Your task to perform on an android device: change notifications settings Image 0: 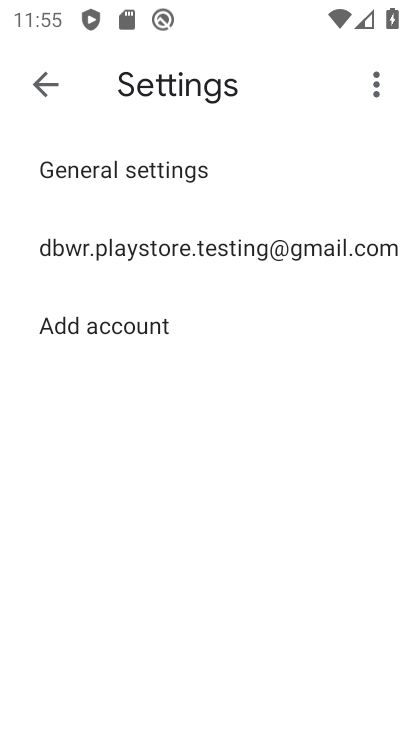
Step 0: press home button
Your task to perform on an android device: change notifications settings Image 1: 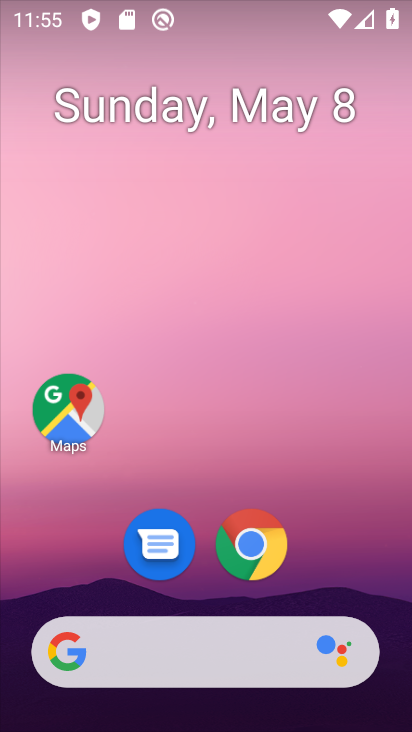
Step 1: drag from (331, 532) to (284, 54)
Your task to perform on an android device: change notifications settings Image 2: 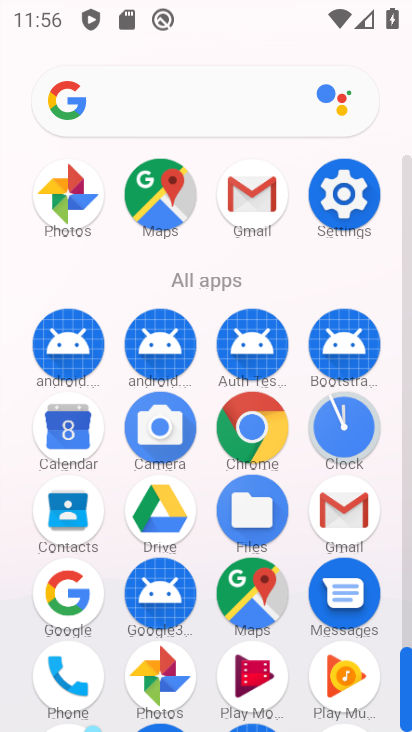
Step 2: click (317, 209)
Your task to perform on an android device: change notifications settings Image 3: 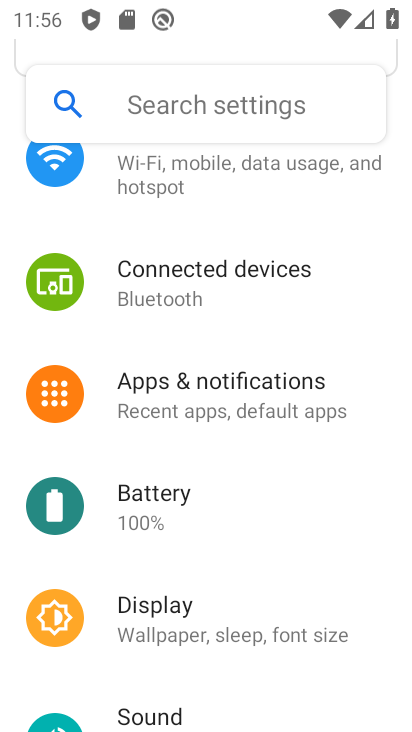
Step 3: drag from (284, 624) to (220, 144)
Your task to perform on an android device: change notifications settings Image 4: 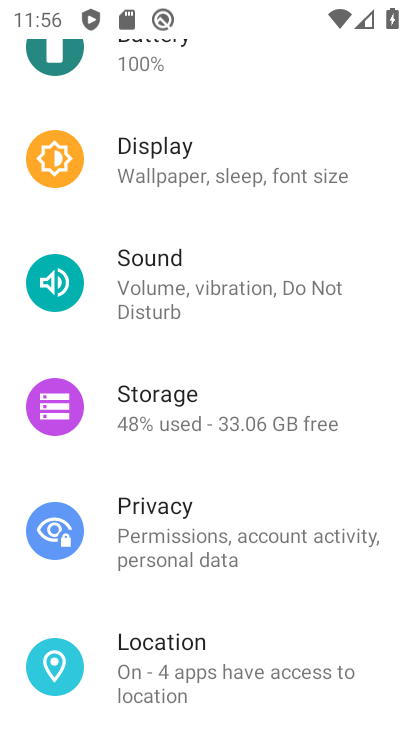
Step 4: drag from (235, 345) to (237, 641)
Your task to perform on an android device: change notifications settings Image 5: 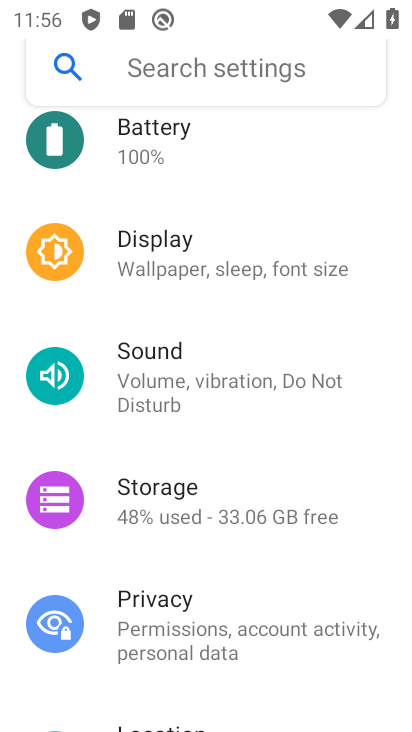
Step 5: drag from (239, 279) to (227, 647)
Your task to perform on an android device: change notifications settings Image 6: 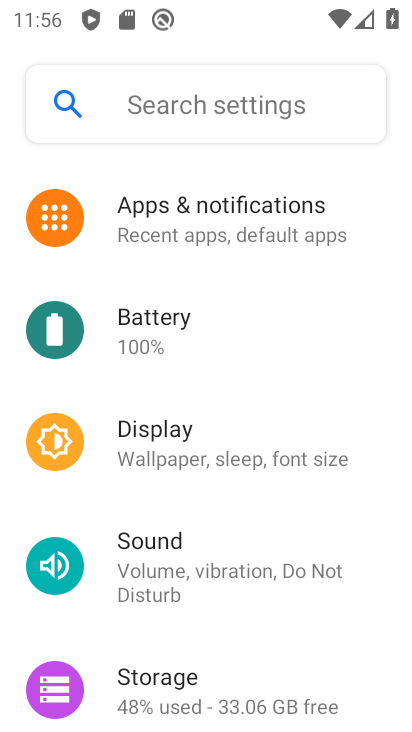
Step 6: drag from (276, 267) to (301, 694)
Your task to perform on an android device: change notifications settings Image 7: 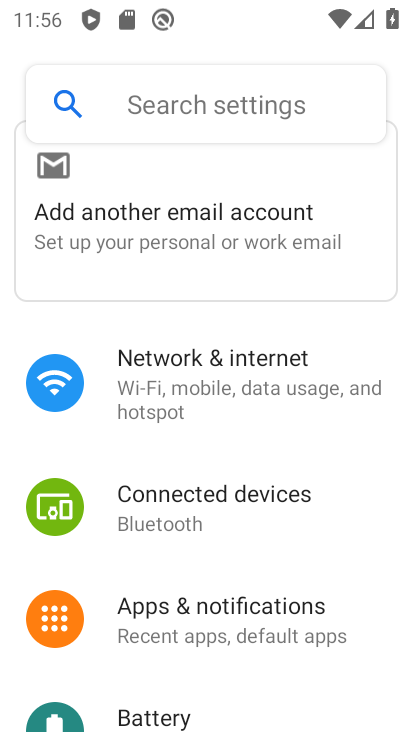
Step 7: click (237, 624)
Your task to perform on an android device: change notifications settings Image 8: 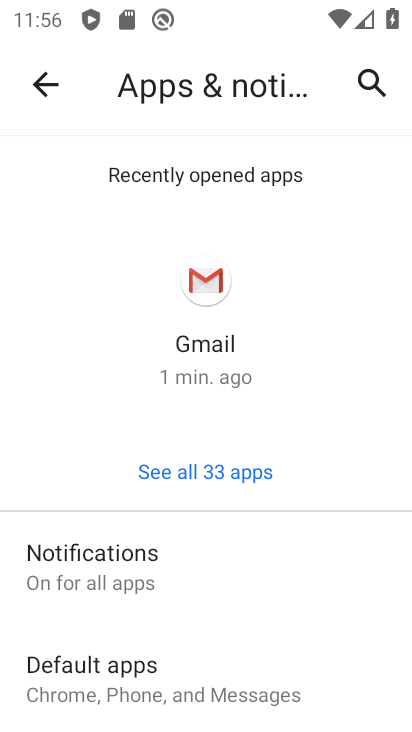
Step 8: click (99, 552)
Your task to perform on an android device: change notifications settings Image 9: 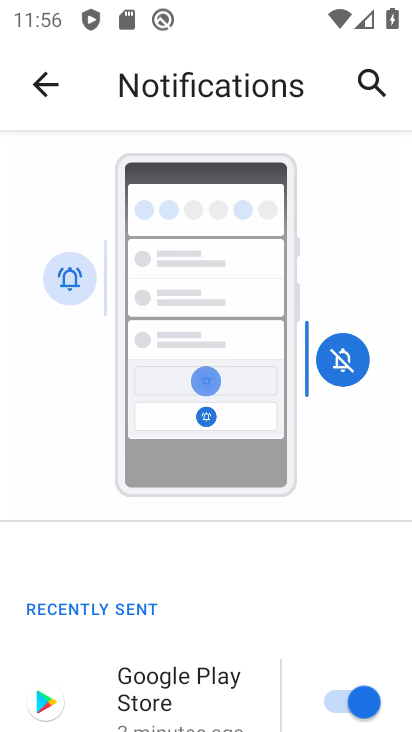
Step 9: click (121, 573)
Your task to perform on an android device: change notifications settings Image 10: 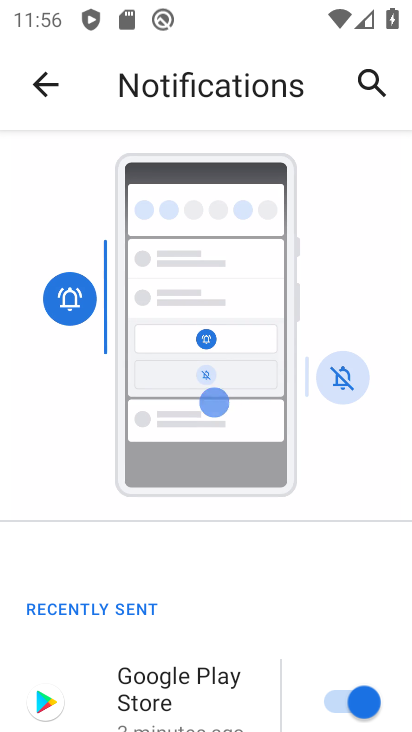
Step 10: drag from (150, 721) to (184, 191)
Your task to perform on an android device: change notifications settings Image 11: 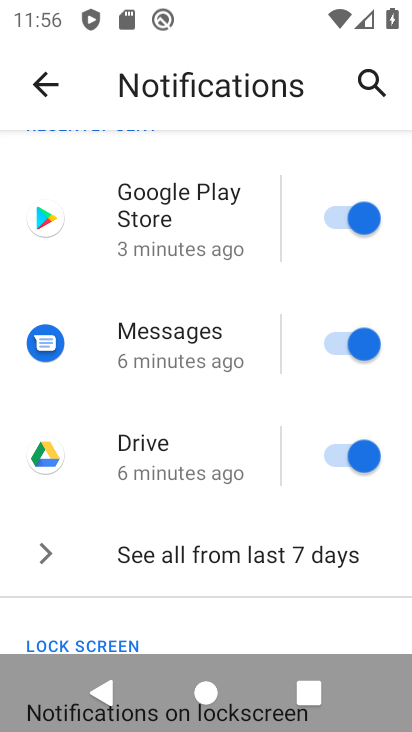
Step 11: drag from (220, 591) to (227, 113)
Your task to perform on an android device: change notifications settings Image 12: 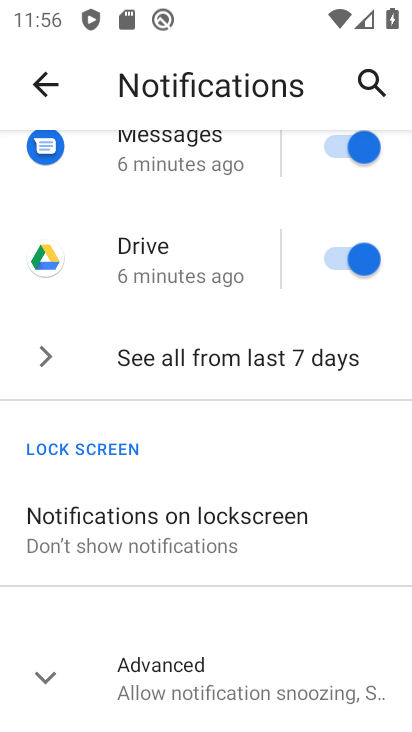
Step 12: click (324, 281)
Your task to perform on an android device: change notifications settings Image 13: 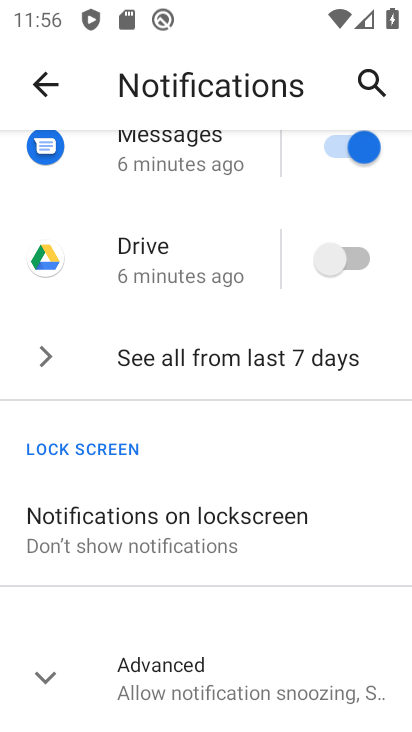
Step 13: task complete